Your task to perform on an android device: What's the weather today? Image 0: 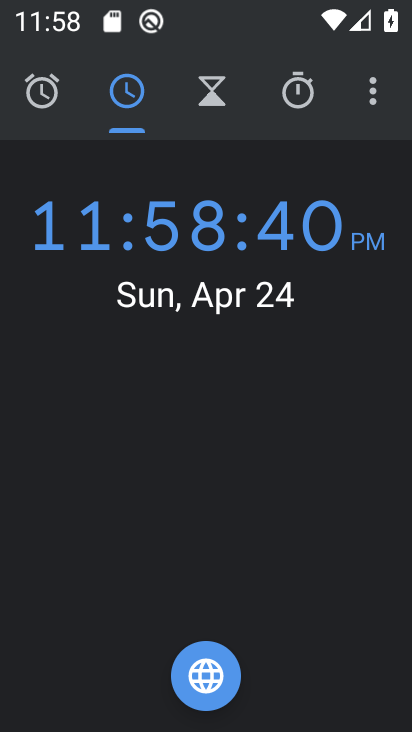
Step 0: press home button
Your task to perform on an android device: What's the weather today? Image 1: 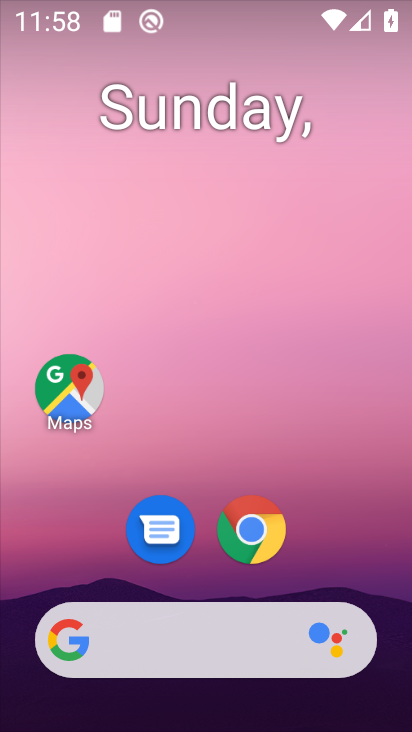
Step 1: drag from (62, 279) to (391, 278)
Your task to perform on an android device: What's the weather today? Image 2: 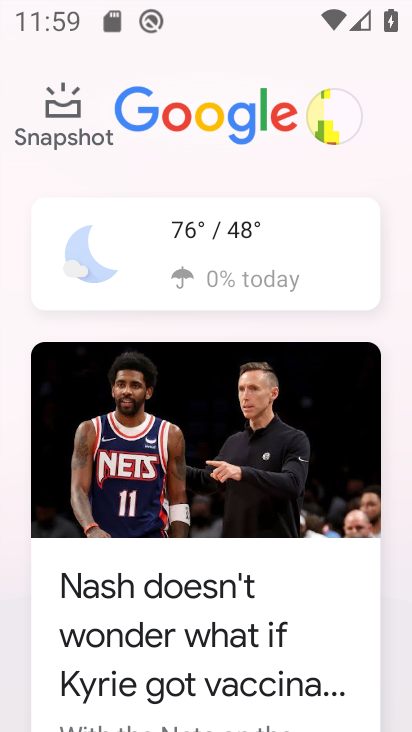
Step 2: click (67, 217)
Your task to perform on an android device: What's the weather today? Image 3: 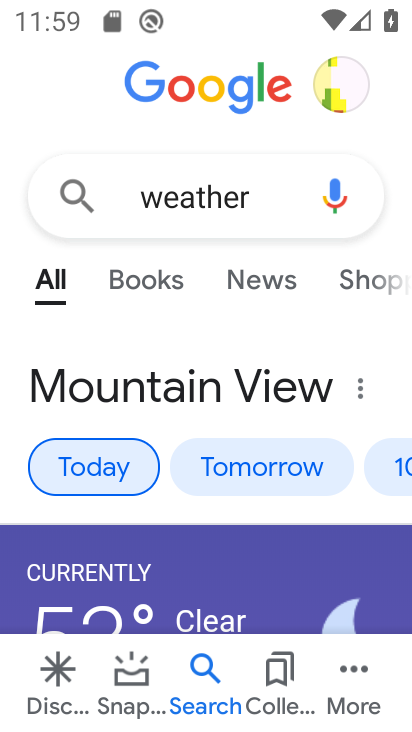
Step 3: task complete